Your task to perform on an android device: allow notifications from all sites in the chrome app Image 0: 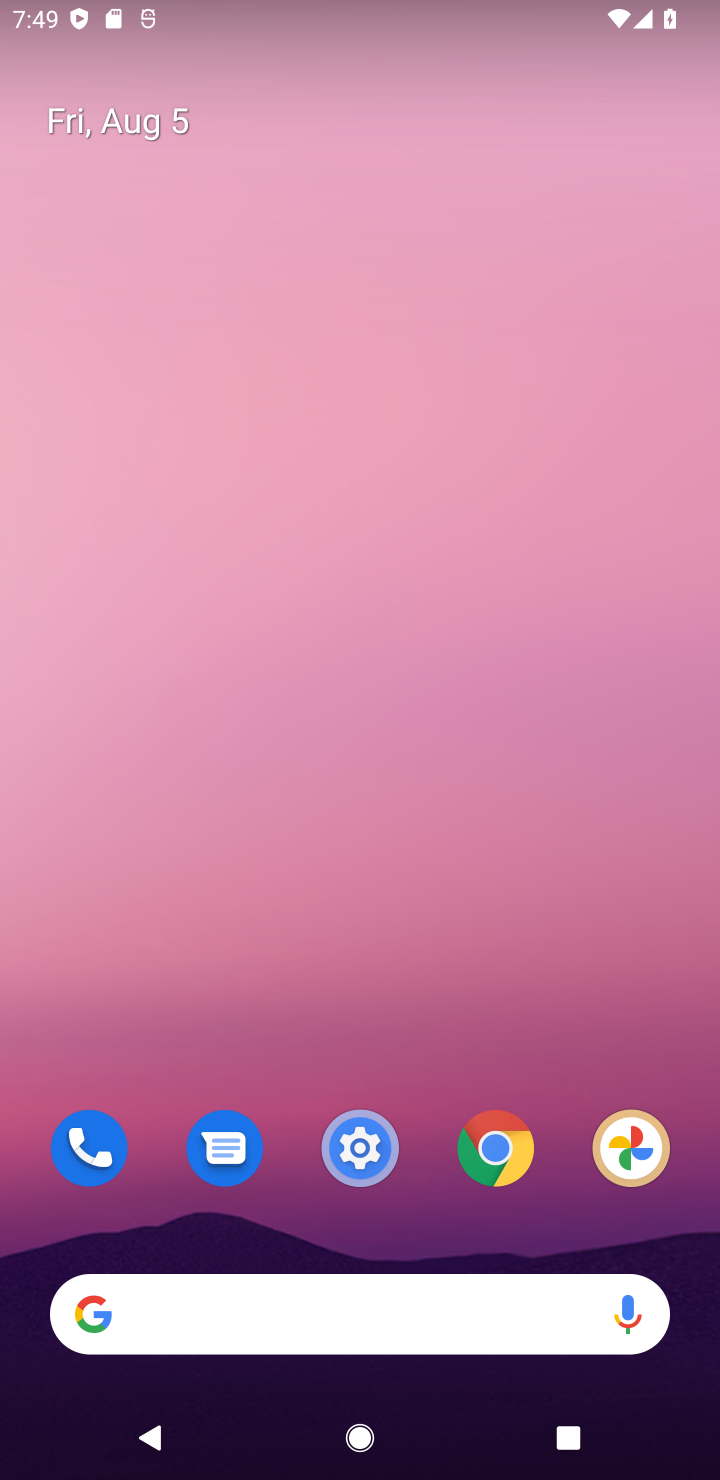
Step 0: click (487, 1184)
Your task to perform on an android device: allow notifications from all sites in the chrome app Image 1: 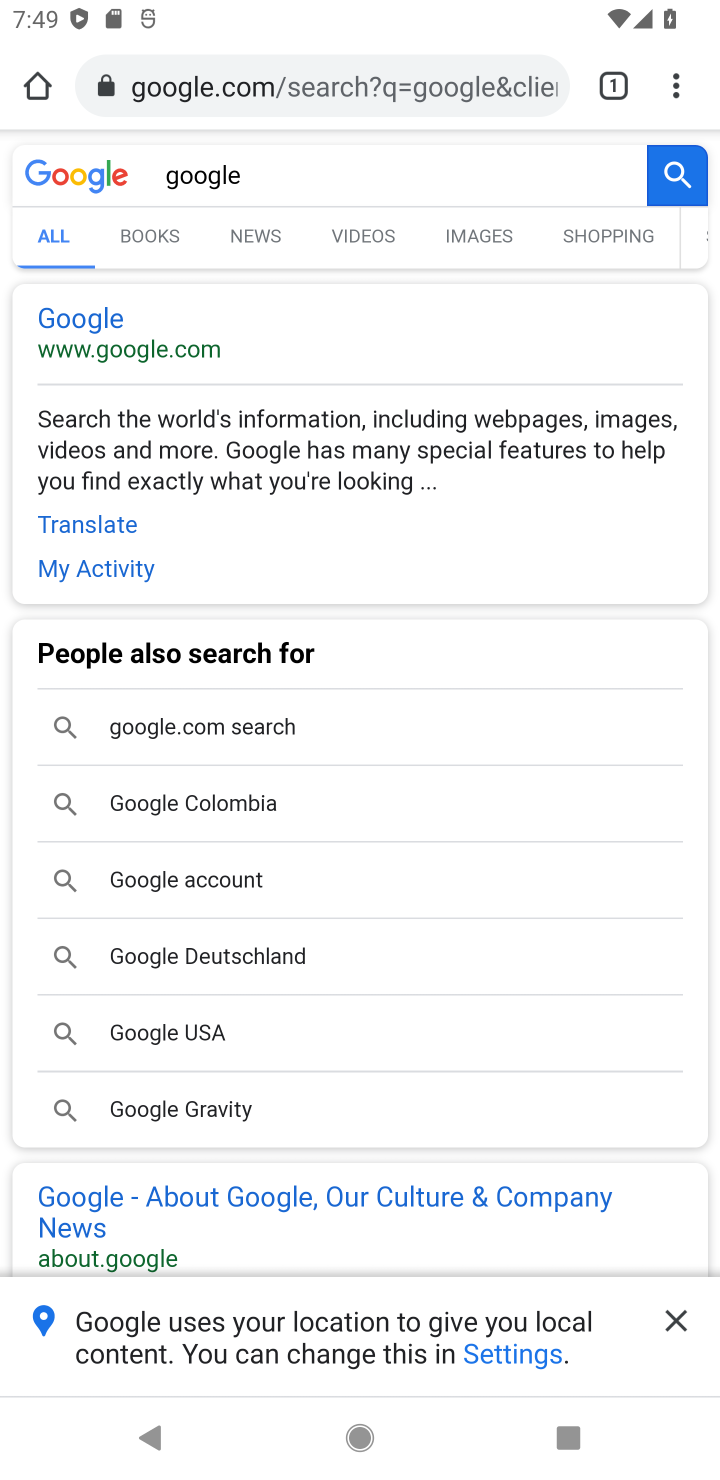
Step 1: click (681, 93)
Your task to perform on an android device: allow notifications from all sites in the chrome app Image 2: 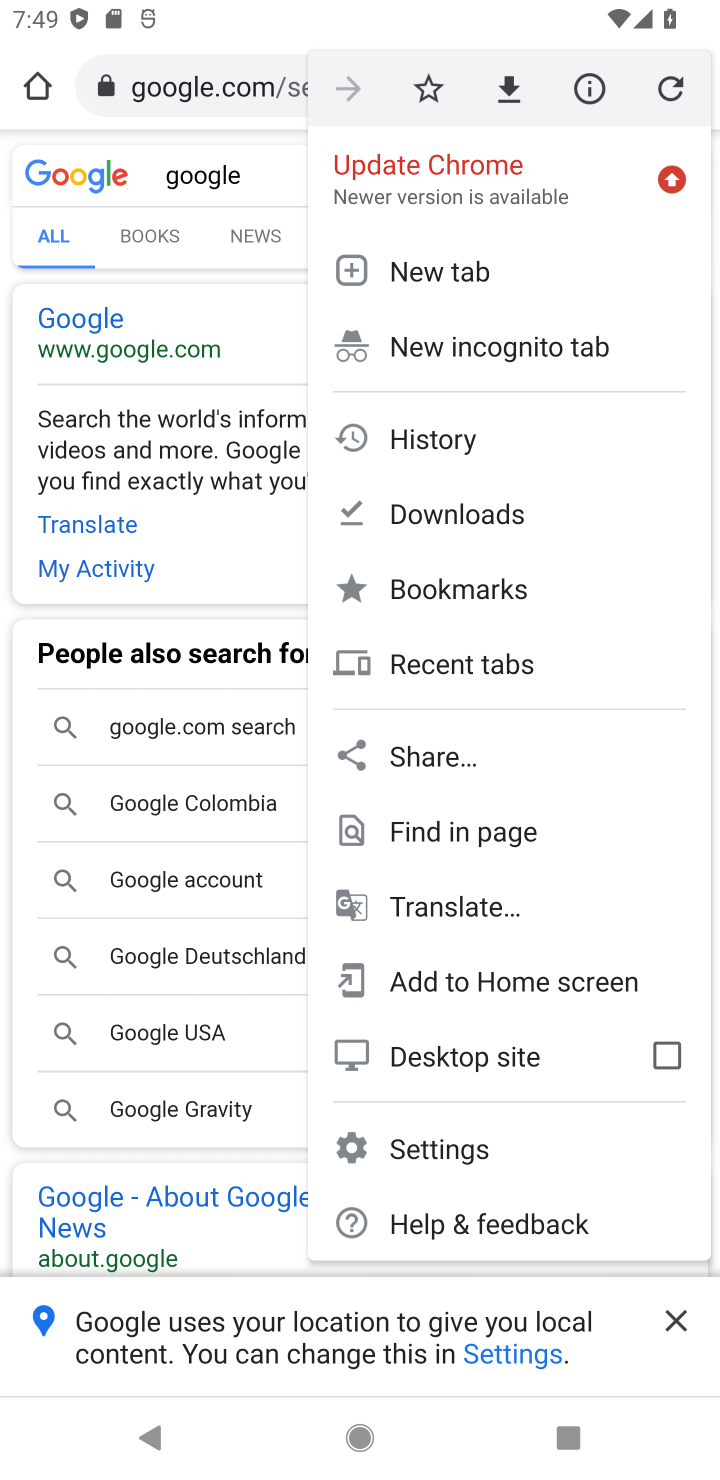
Step 2: click (468, 1129)
Your task to perform on an android device: allow notifications from all sites in the chrome app Image 3: 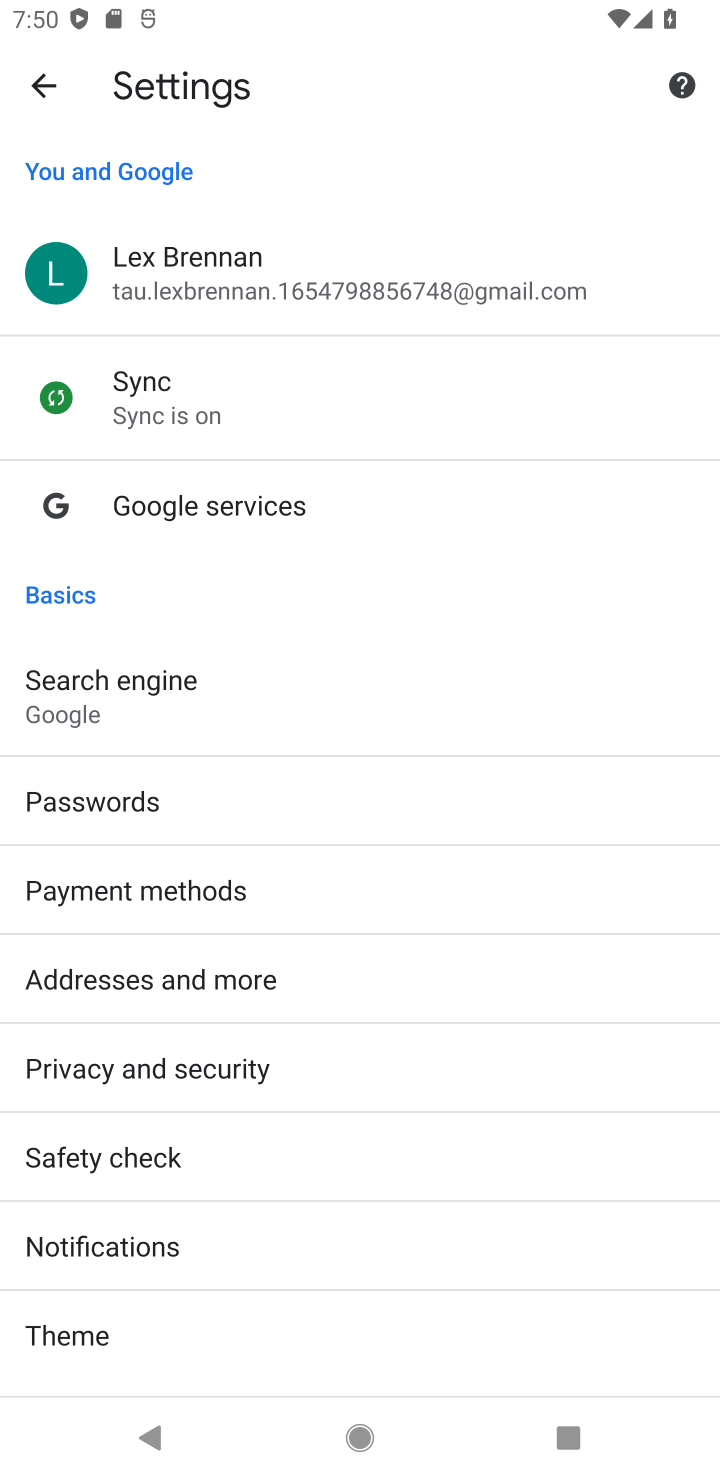
Step 3: task complete